Your task to perform on an android device: set an alarm Image 0: 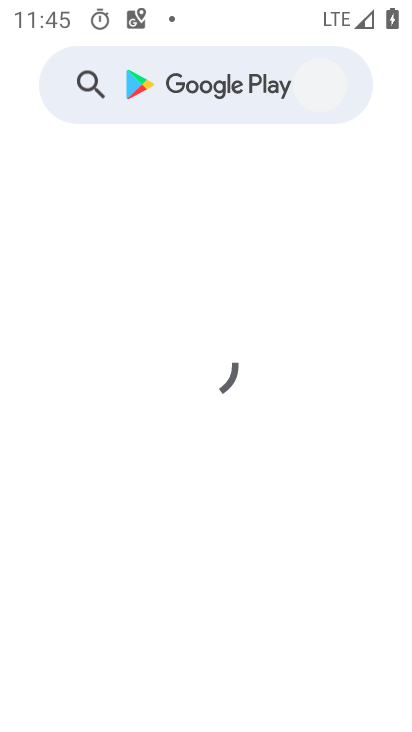
Step 0: drag from (223, 632) to (241, 199)
Your task to perform on an android device: set an alarm Image 1: 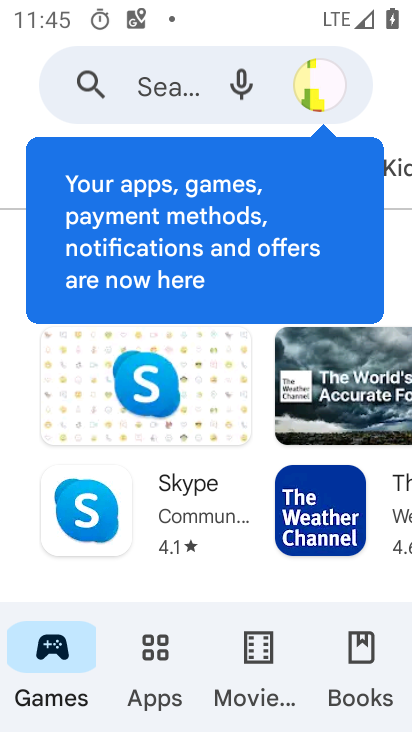
Step 1: press home button
Your task to perform on an android device: set an alarm Image 2: 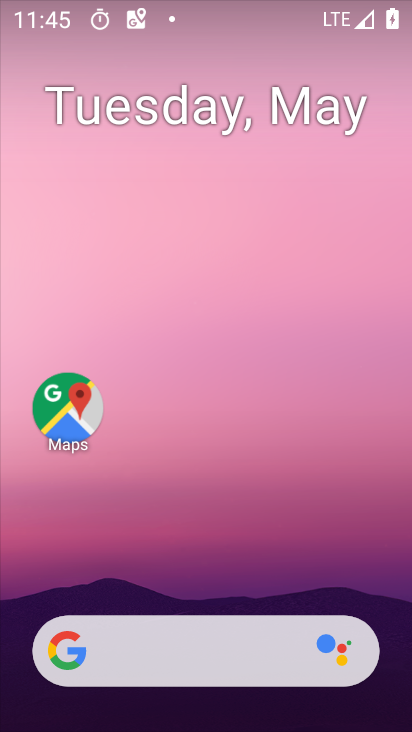
Step 2: drag from (187, 655) to (175, 170)
Your task to perform on an android device: set an alarm Image 3: 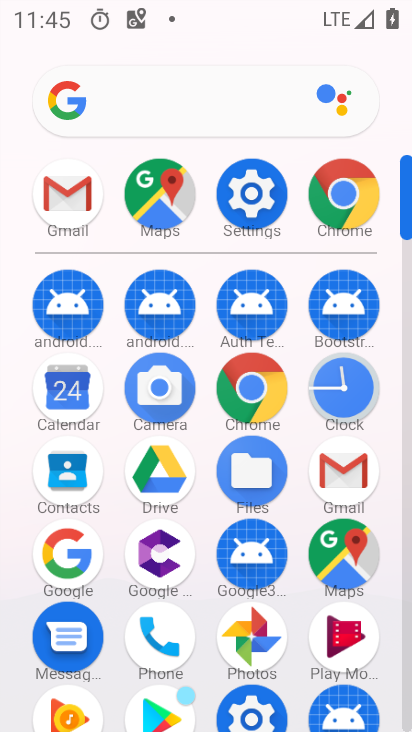
Step 3: click (342, 380)
Your task to perform on an android device: set an alarm Image 4: 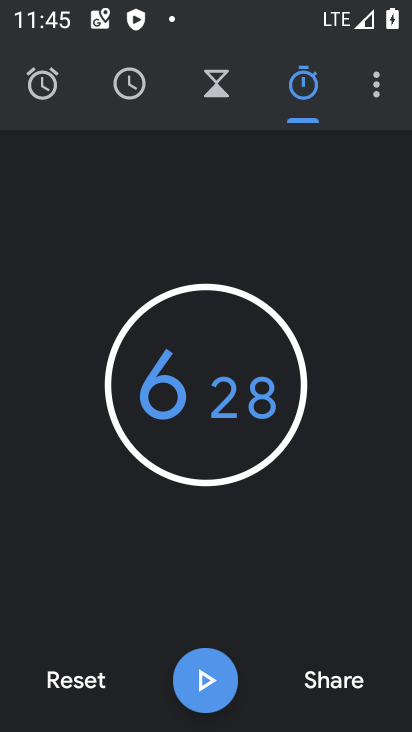
Step 4: click (59, 91)
Your task to perform on an android device: set an alarm Image 5: 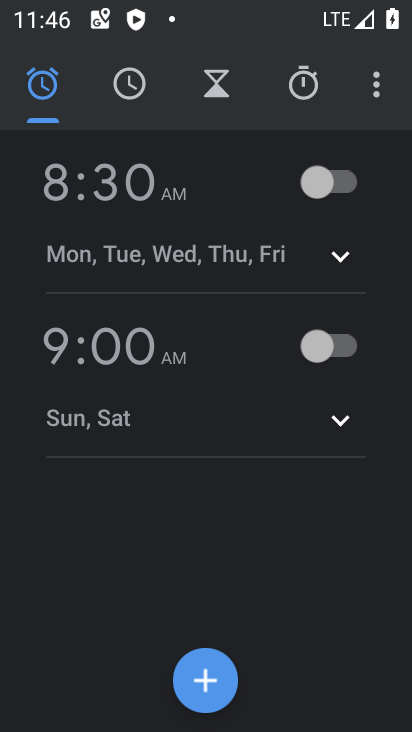
Step 5: click (209, 662)
Your task to perform on an android device: set an alarm Image 6: 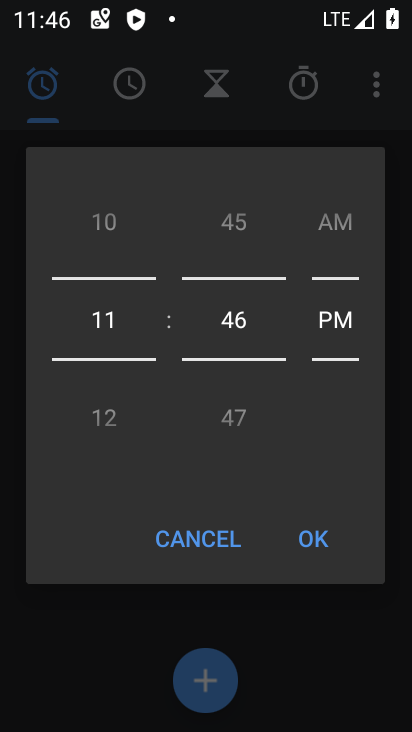
Step 6: drag from (128, 394) to (85, 142)
Your task to perform on an android device: set an alarm Image 7: 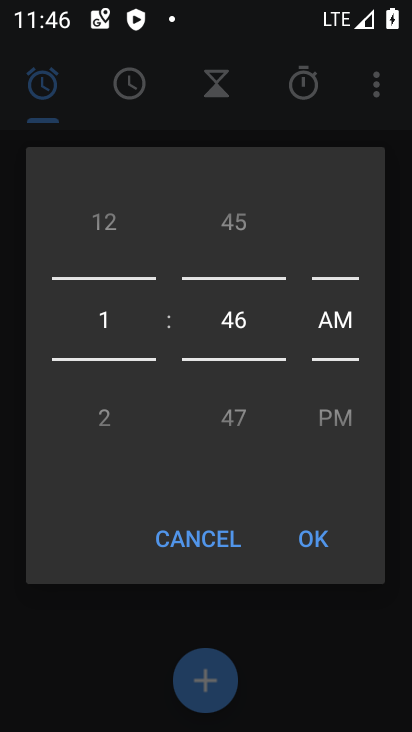
Step 7: click (319, 525)
Your task to perform on an android device: set an alarm Image 8: 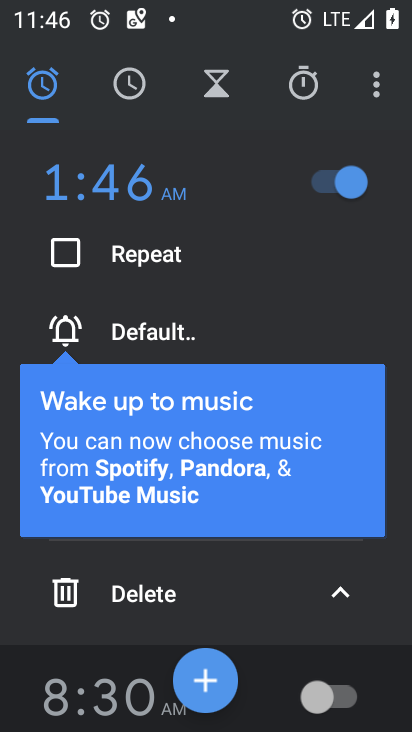
Step 8: task complete